Your task to perform on an android device: show emergency info Image 0: 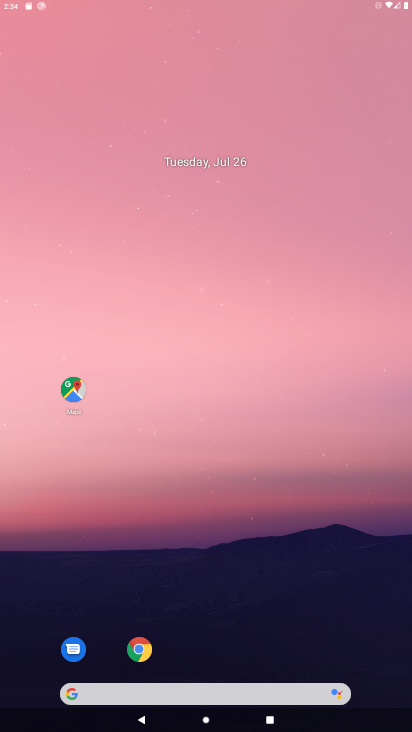
Step 0: drag from (183, 703) to (183, 193)
Your task to perform on an android device: show emergency info Image 1: 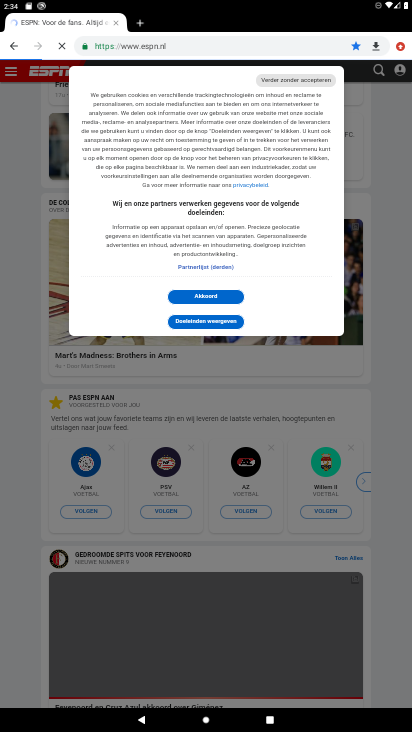
Step 1: press home button
Your task to perform on an android device: show emergency info Image 2: 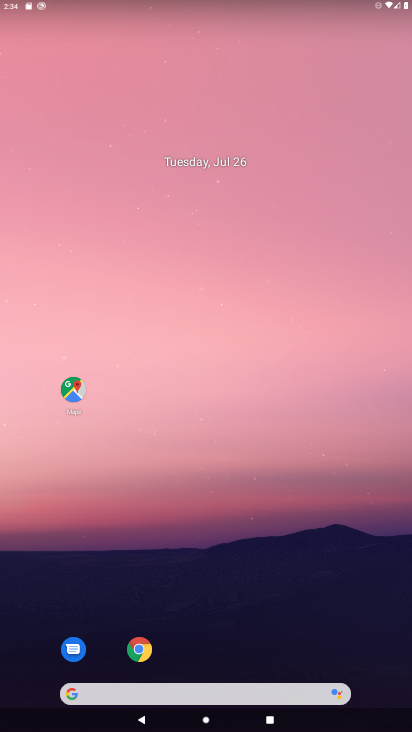
Step 2: drag from (192, 693) to (252, 0)
Your task to perform on an android device: show emergency info Image 3: 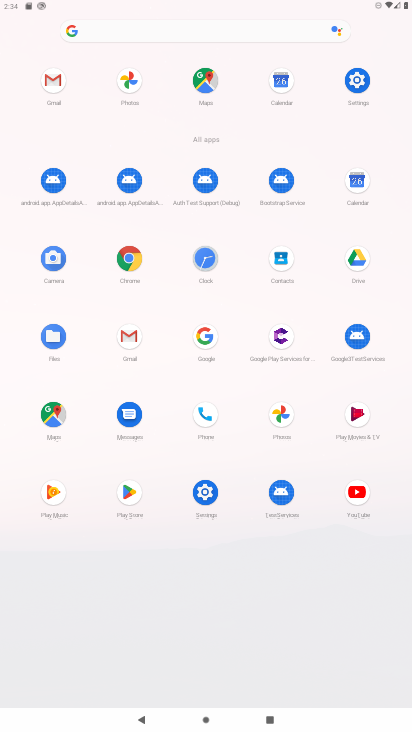
Step 3: click (356, 94)
Your task to perform on an android device: show emergency info Image 4: 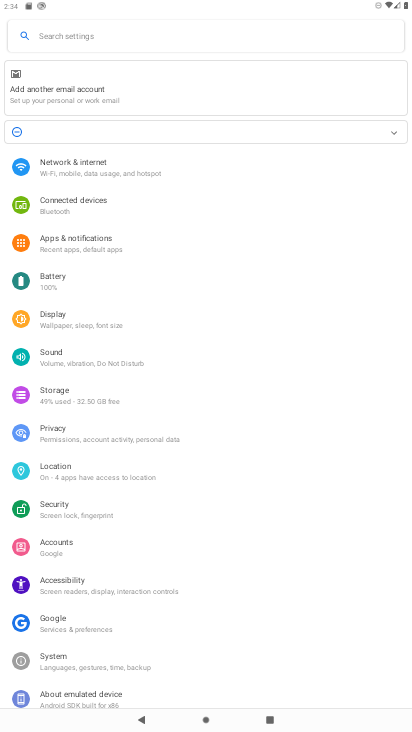
Step 4: drag from (65, 670) to (83, 410)
Your task to perform on an android device: show emergency info Image 5: 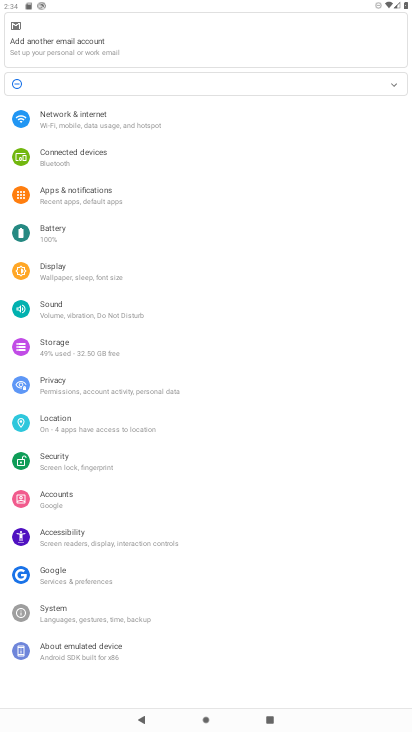
Step 5: click (82, 662)
Your task to perform on an android device: show emergency info Image 6: 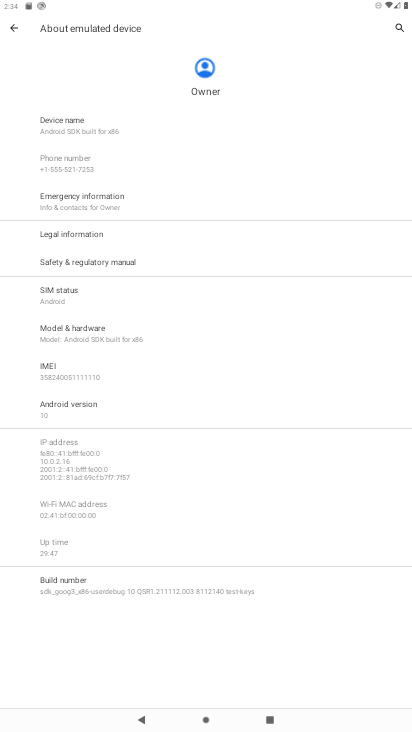
Step 6: click (106, 203)
Your task to perform on an android device: show emergency info Image 7: 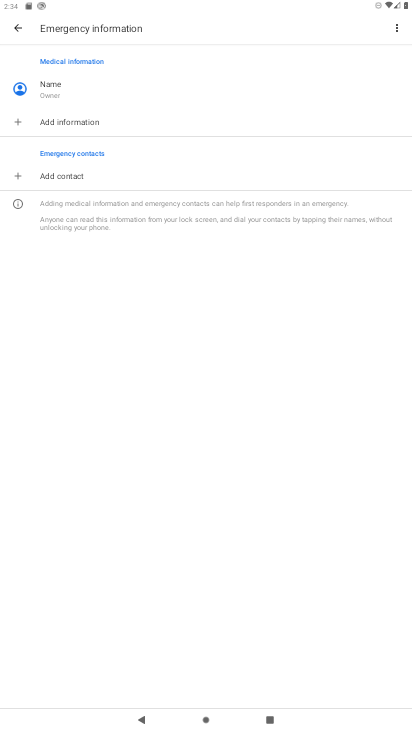
Step 7: task complete